Your task to perform on an android device: Go to calendar. Show me events next week Image 0: 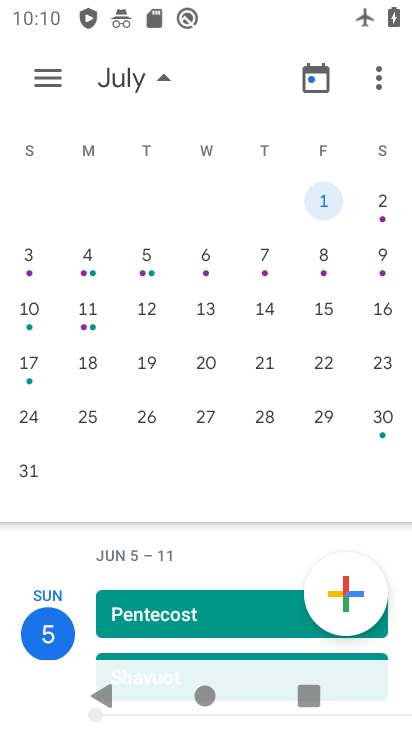
Step 0: press home button
Your task to perform on an android device: Go to calendar. Show me events next week Image 1: 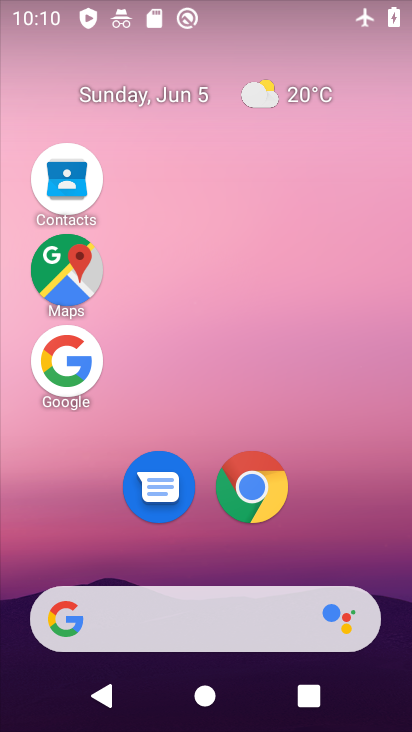
Step 1: drag from (185, 420) to (269, 94)
Your task to perform on an android device: Go to calendar. Show me events next week Image 2: 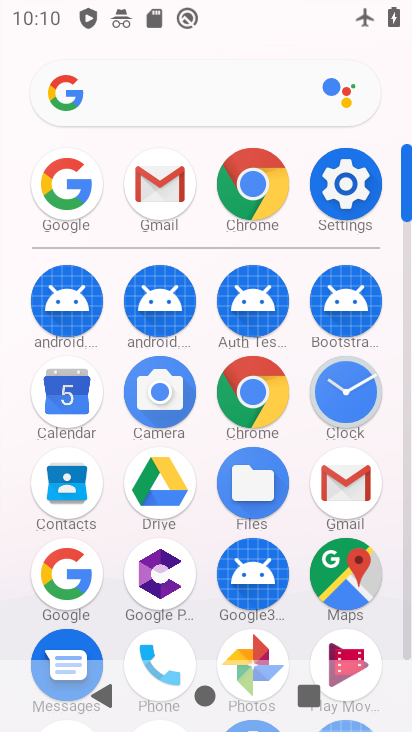
Step 2: drag from (196, 477) to (242, 159)
Your task to perform on an android device: Go to calendar. Show me events next week Image 3: 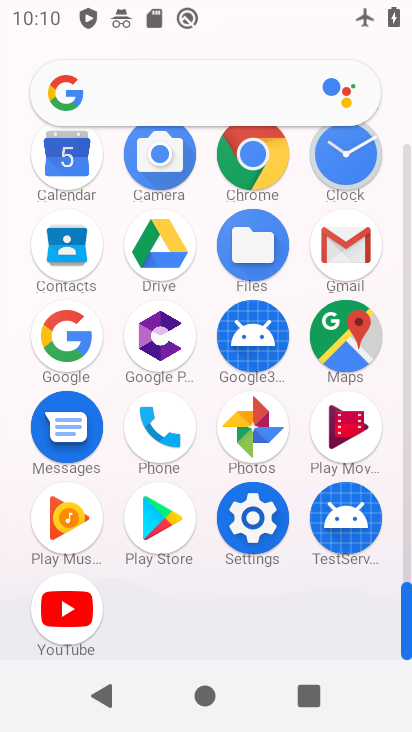
Step 3: click (81, 159)
Your task to perform on an android device: Go to calendar. Show me events next week Image 4: 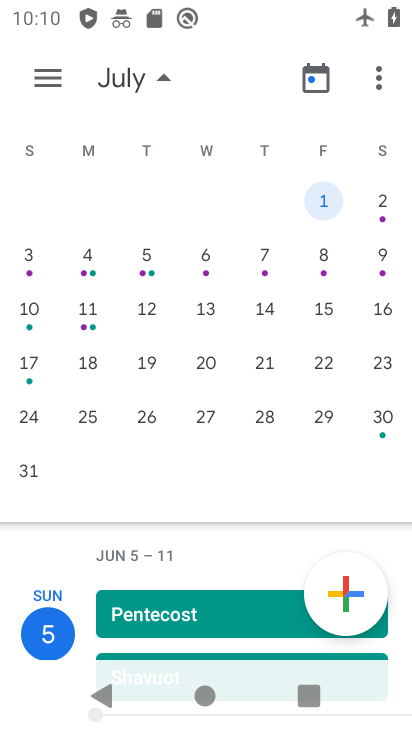
Step 4: click (35, 267)
Your task to perform on an android device: Go to calendar. Show me events next week Image 5: 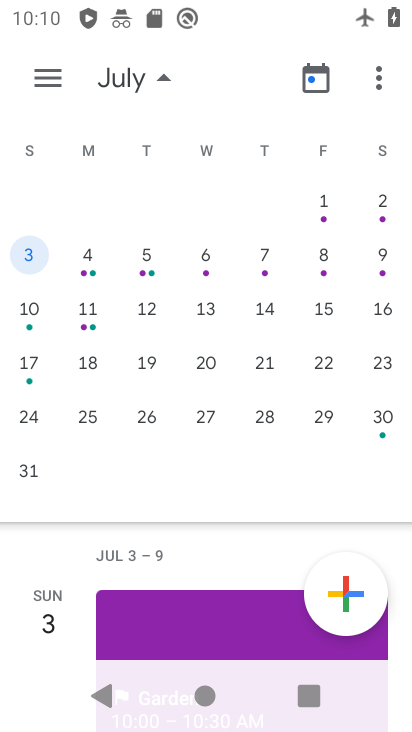
Step 5: drag from (180, 389) to (406, 327)
Your task to perform on an android device: Go to calendar. Show me events next week Image 6: 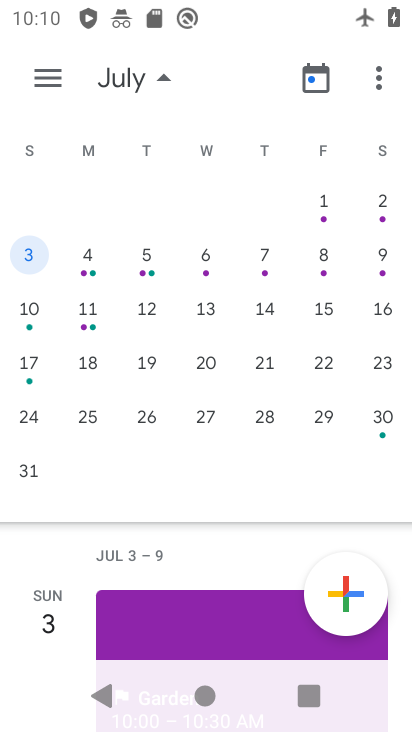
Step 6: drag from (79, 403) to (401, 341)
Your task to perform on an android device: Go to calendar. Show me events next week Image 7: 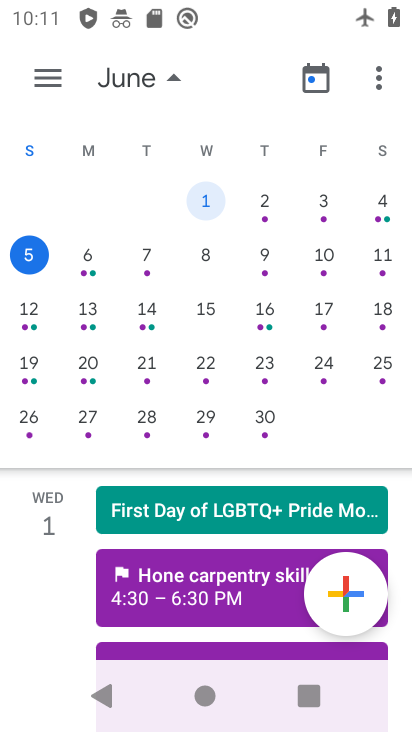
Step 7: click (47, 305)
Your task to perform on an android device: Go to calendar. Show me events next week Image 8: 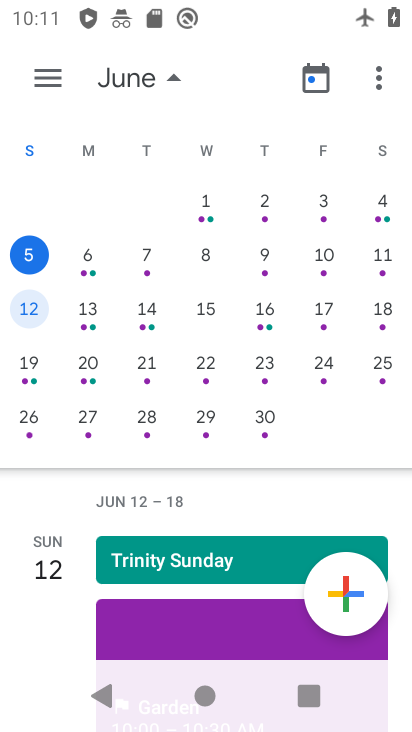
Step 8: task complete